Your task to perform on an android device: Go to calendar. Show me events next week Image 0: 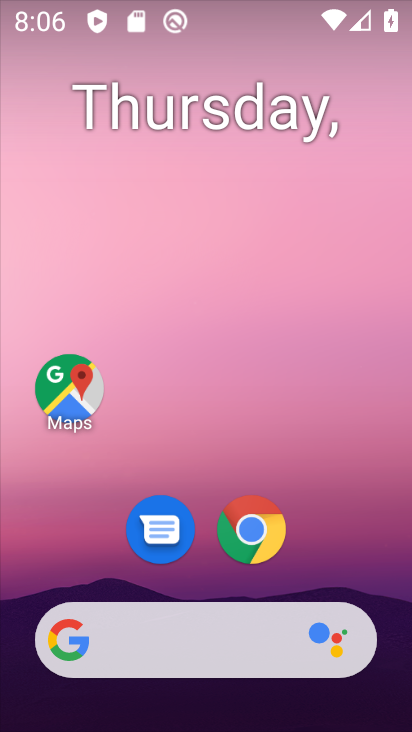
Step 0: press home button
Your task to perform on an android device: Go to calendar. Show me events next week Image 1: 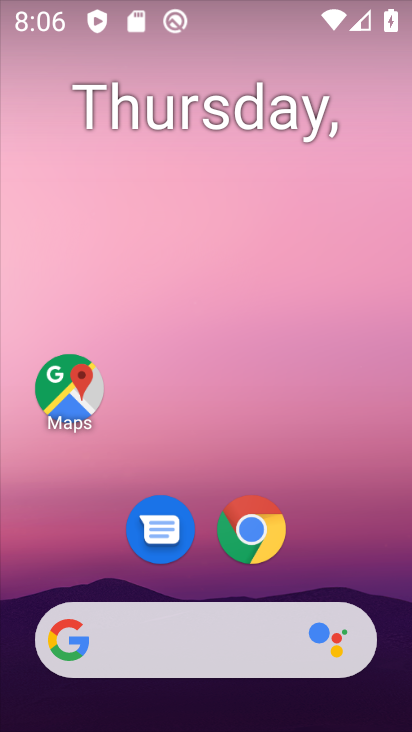
Step 1: click (287, 241)
Your task to perform on an android device: Go to calendar. Show me events next week Image 2: 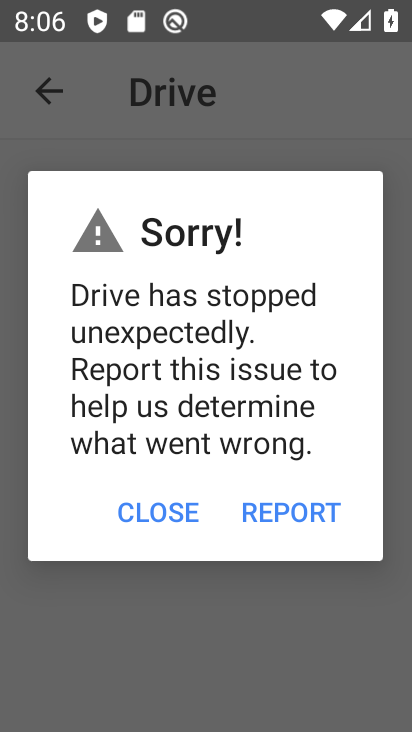
Step 2: drag from (220, 632) to (320, 197)
Your task to perform on an android device: Go to calendar. Show me events next week Image 3: 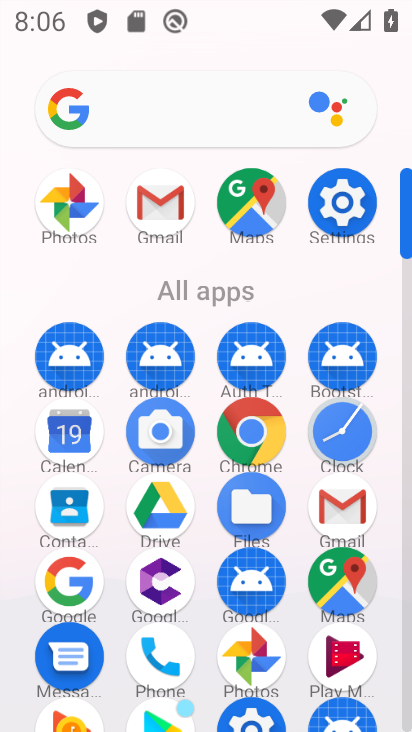
Step 3: drag from (208, 604) to (297, 276)
Your task to perform on an android device: Go to calendar. Show me events next week Image 4: 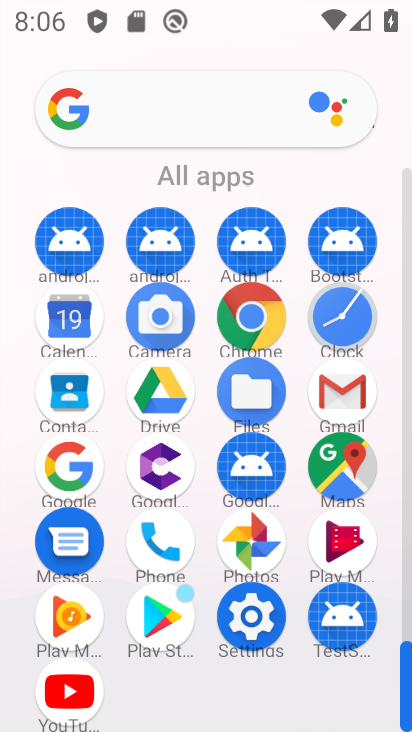
Step 4: click (68, 318)
Your task to perform on an android device: Go to calendar. Show me events next week Image 5: 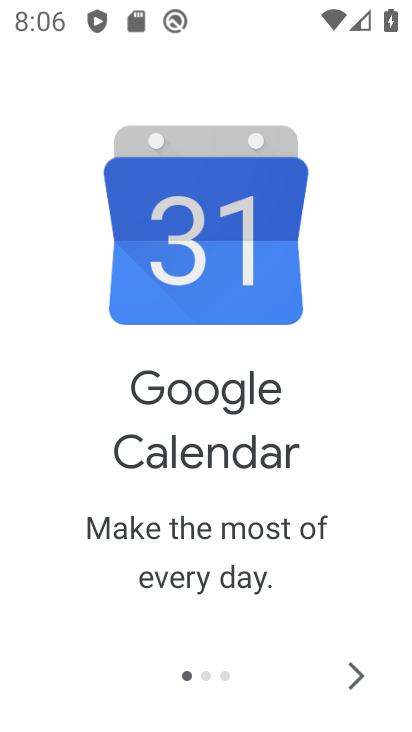
Step 5: click (346, 671)
Your task to perform on an android device: Go to calendar. Show me events next week Image 6: 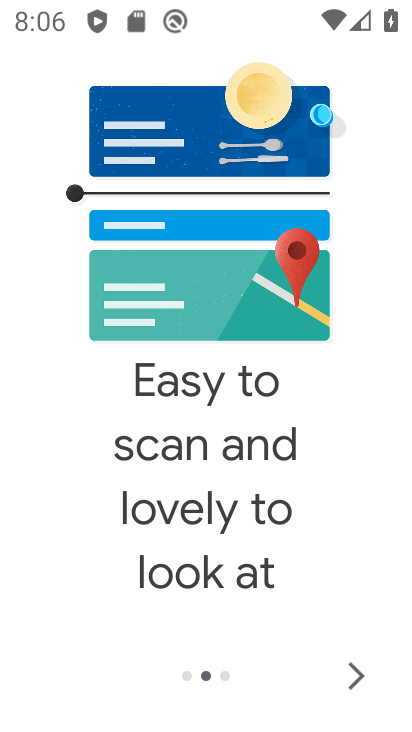
Step 6: click (346, 671)
Your task to perform on an android device: Go to calendar. Show me events next week Image 7: 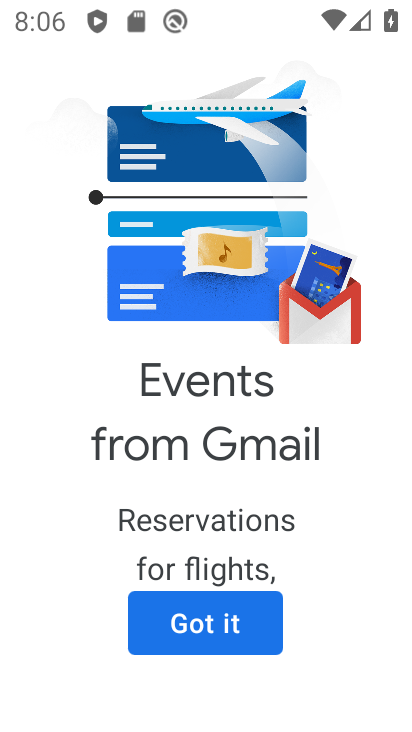
Step 7: click (231, 626)
Your task to perform on an android device: Go to calendar. Show me events next week Image 8: 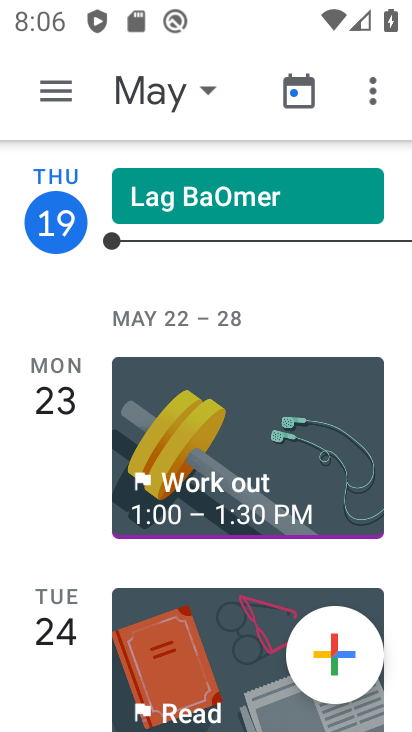
Step 8: click (126, 92)
Your task to perform on an android device: Go to calendar. Show me events next week Image 9: 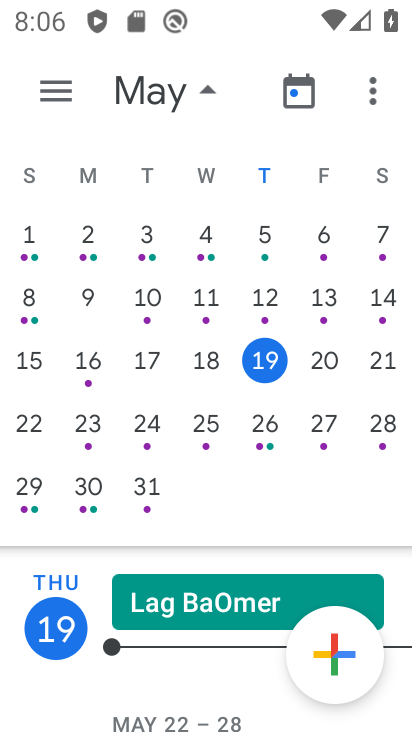
Step 9: click (36, 425)
Your task to perform on an android device: Go to calendar. Show me events next week Image 10: 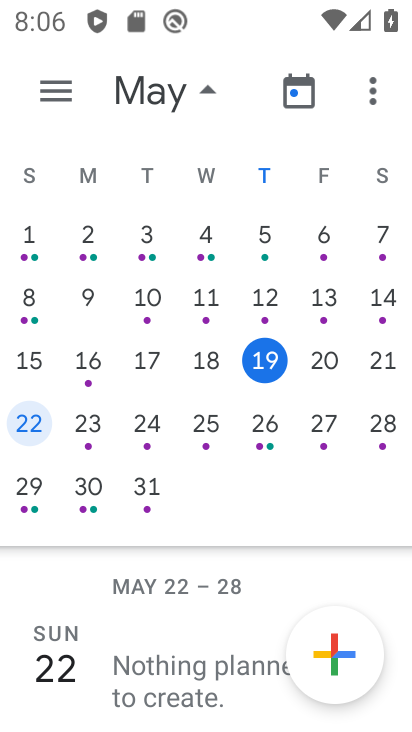
Step 10: click (55, 84)
Your task to perform on an android device: Go to calendar. Show me events next week Image 11: 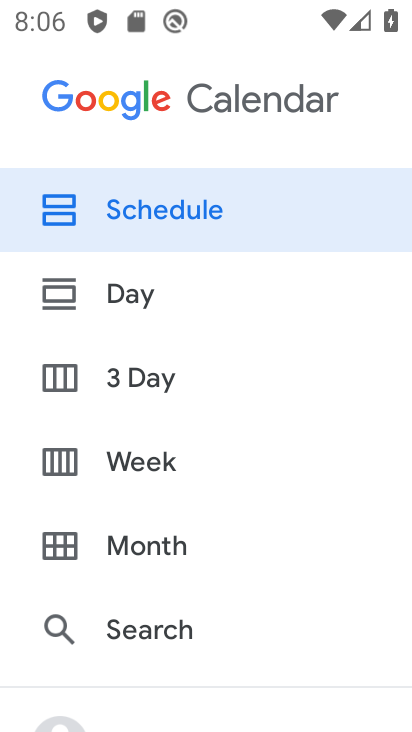
Step 11: click (161, 458)
Your task to perform on an android device: Go to calendar. Show me events next week Image 12: 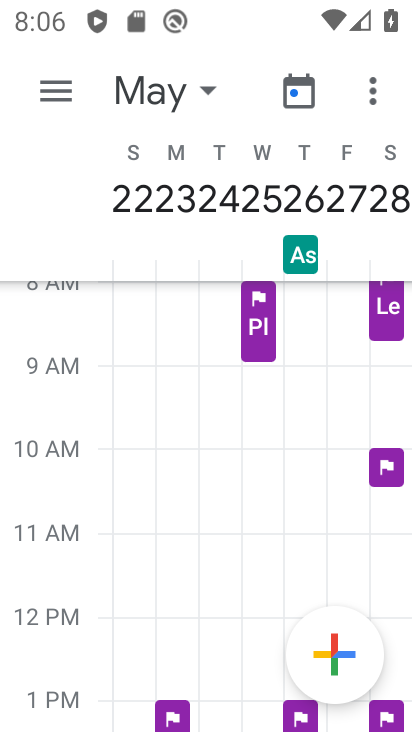
Step 12: click (63, 94)
Your task to perform on an android device: Go to calendar. Show me events next week Image 13: 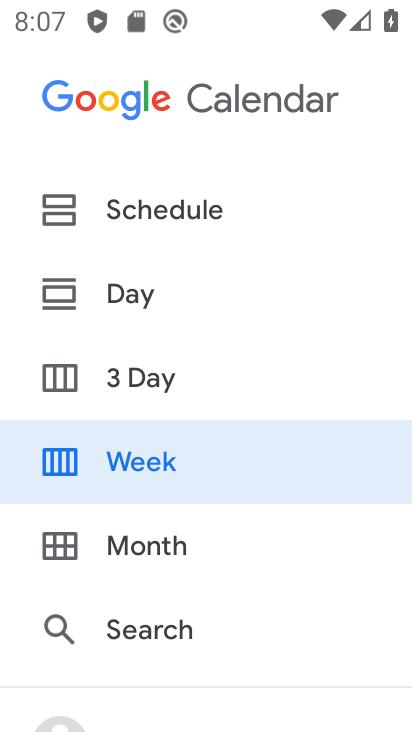
Step 13: click (127, 213)
Your task to perform on an android device: Go to calendar. Show me events next week Image 14: 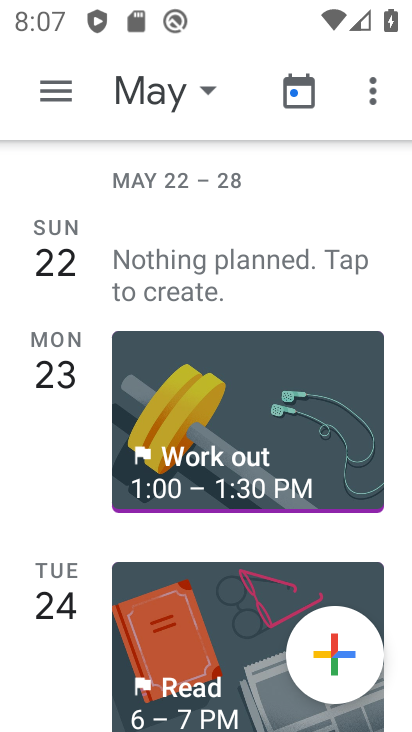
Step 14: drag from (216, 567) to (270, 356)
Your task to perform on an android device: Go to calendar. Show me events next week Image 15: 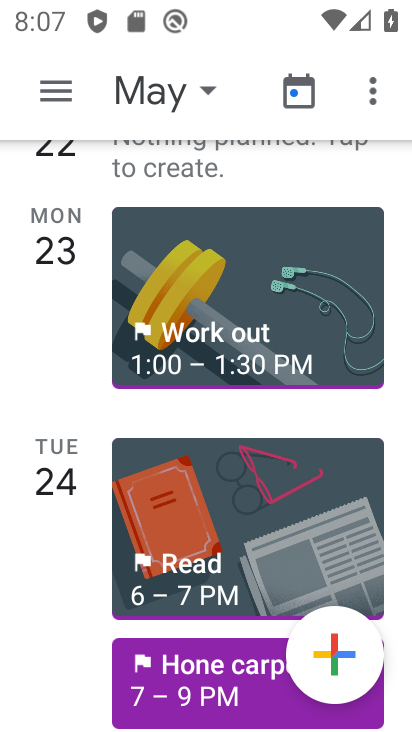
Step 15: drag from (234, 542) to (343, 246)
Your task to perform on an android device: Go to calendar. Show me events next week Image 16: 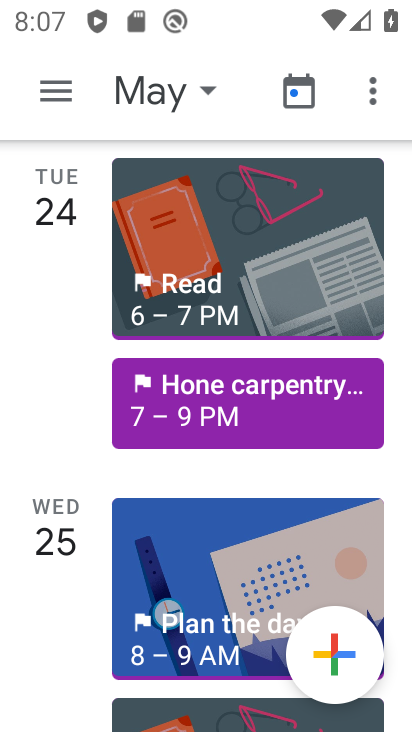
Step 16: click (231, 399)
Your task to perform on an android device: Go to calendar. Show me events next week Image 17: 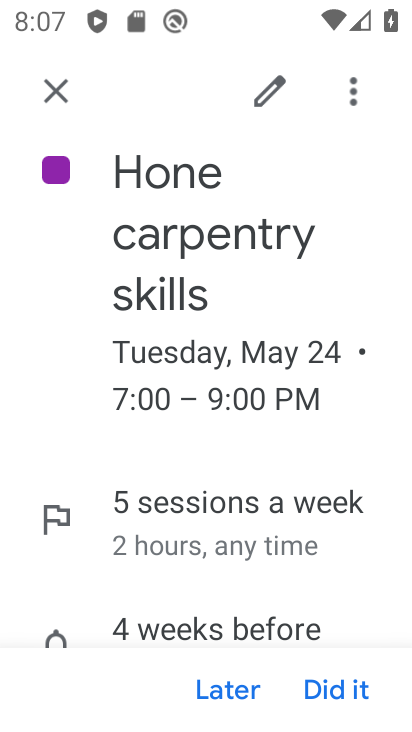
Step 17: task complete